Your task to perform on an android device: stop showing notifications on the lock screen Image 0: 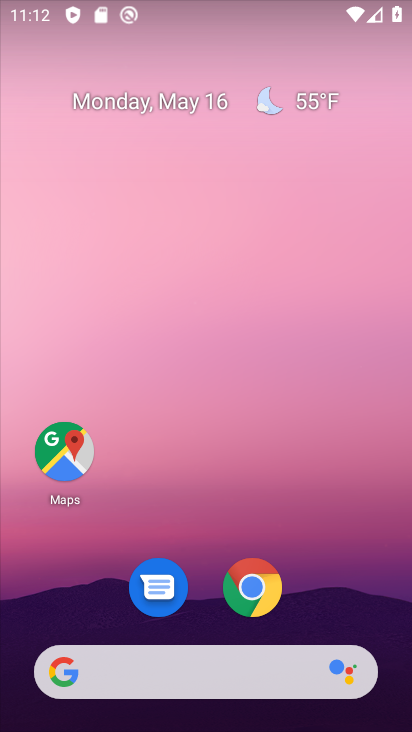
Step 0: click (307, 207)
Your task to perform on an android device: stop showing notifications on the lock screen Image 1: 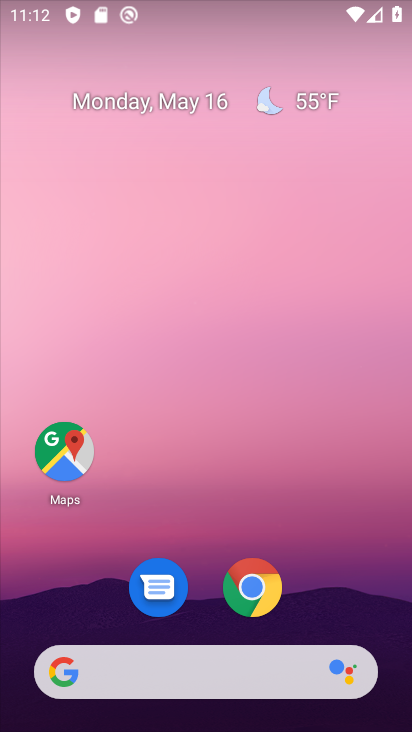
Step 1: drag from (214, 617) to (266, 122)
Your task to perform on an android device: stop showing notifications on the lock screen Image 2: 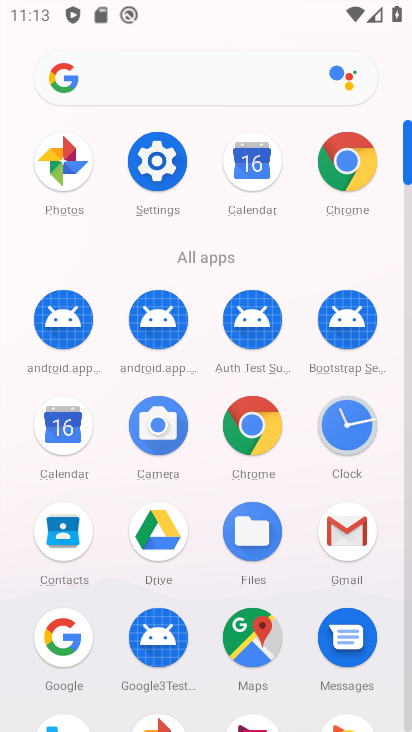
Step 2: drag from (190, 659) to (256, 173)
Your task to perform on an android device: stop showing notifications on the lock screen Image 3: 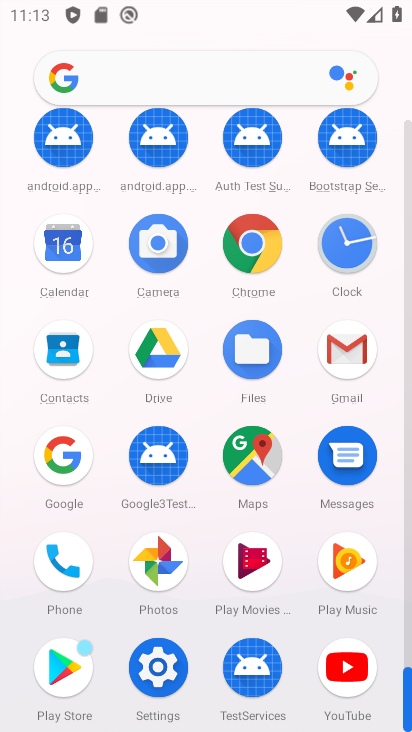
Step 3: click (173, 665)
Your task to perform on an android device: stop showing notifications on the lock screen Image 4: 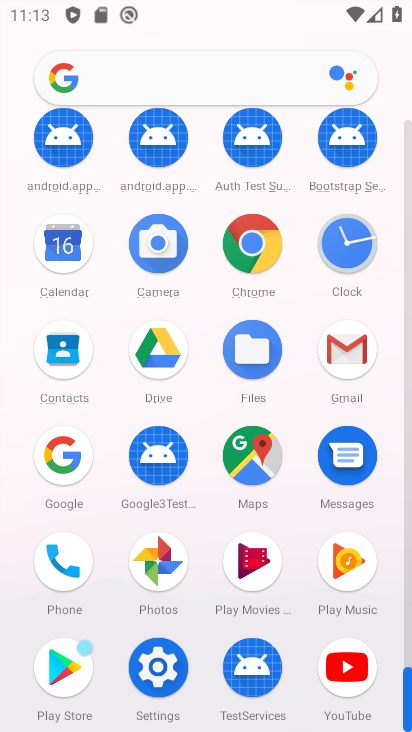
Step 4: click (173, 665)
Your task to perform on an android device: stop showing notifications on the lock screen Image 5: 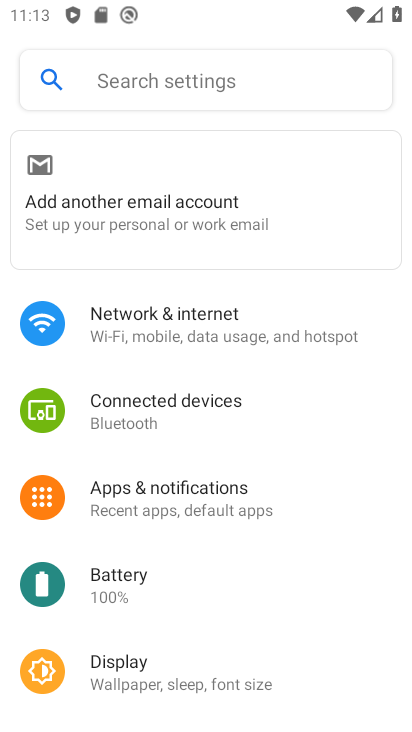
Step 5: click (178, 506)
Your task to perform on an android device: stop showing notifications on the lock screen Image 6: 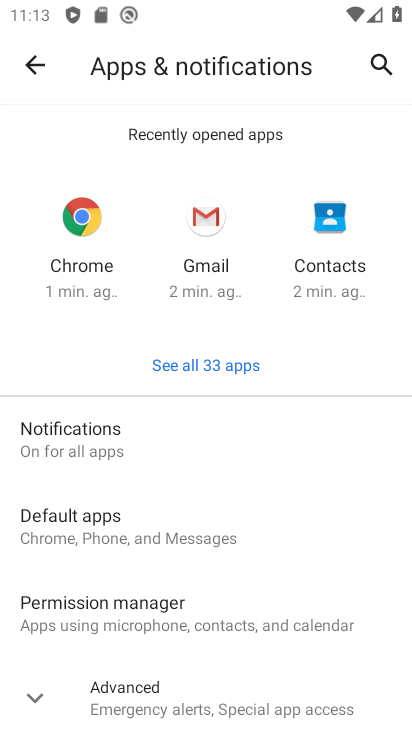
Step 6: click (173, 442)
Your task to perform on an android device: stop showing notifications on the lock screen Image 7: 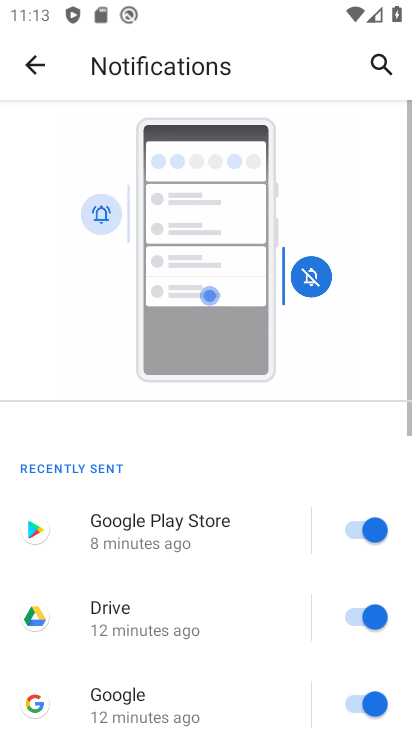
Step 7: drag from (218, 639) to (325, 132)
Your task to perform on an android device: stop showing notifications on the lock screen Image 8: 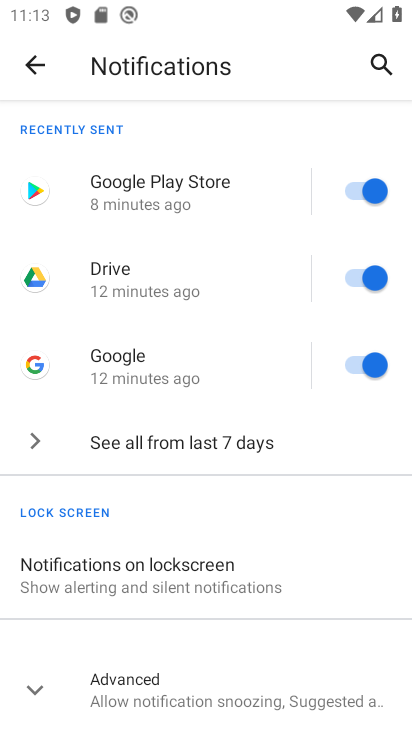
Step 8: drag from (222, 647) to (319, 341)
Your task to perform on an android device: stop showing notifications on the lock screen Image 9: 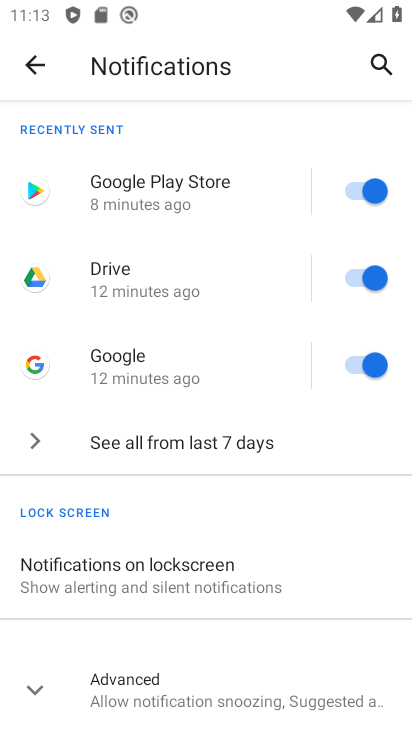
Step 9: click (225, 577)
Your task to perform on an android device: stop showing notifications on the lock screen Image 10: 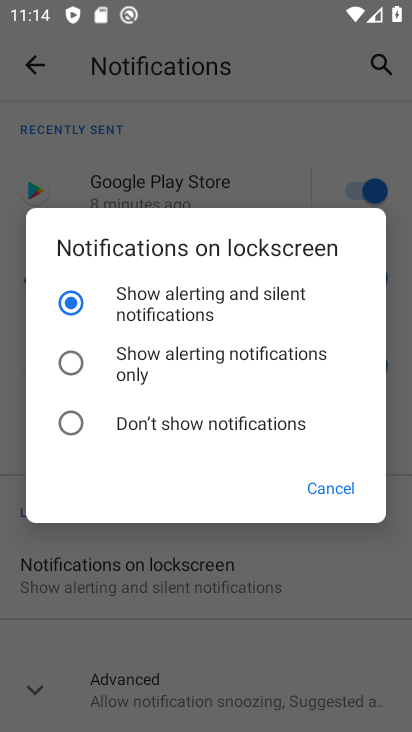
Step 10: click (341, 488)
Your task to perform on an android device: stop showing notifications on the lock screen Image 11: 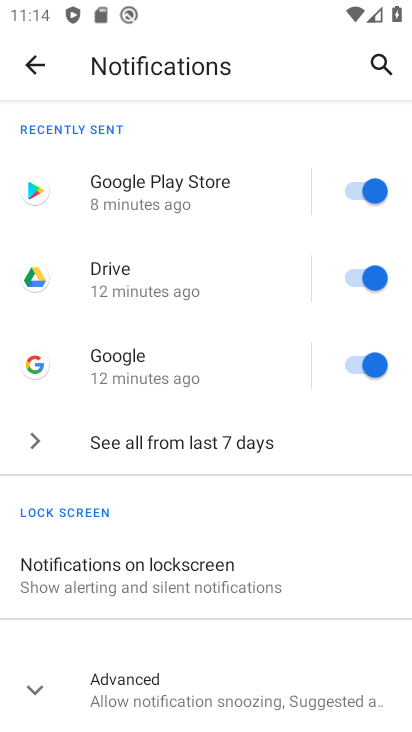
Step 11: click (186, 583)
Your task to perform on an android device: stop showing notifications on the lock screen Image 12: 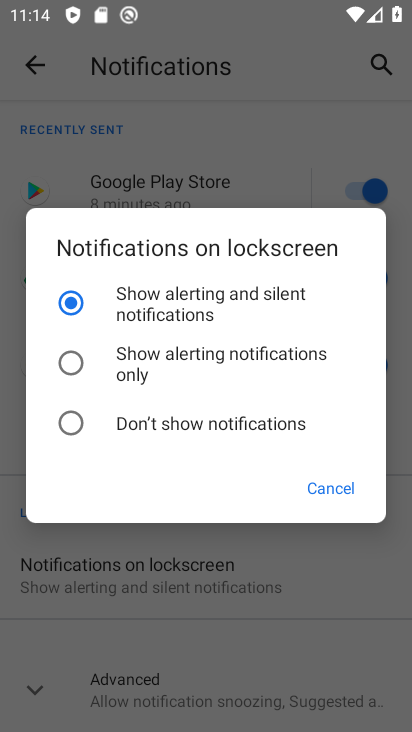
Step 12: click (186, 583)
Your task to perform on an android device: stop showing notifications on the lock screen Image 13: 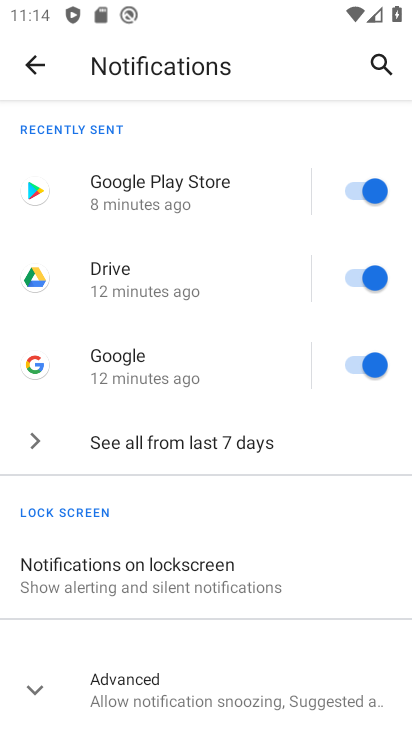
Step 13: click (201, 580)
Your task to perform on an android device: stop showing notifications on the lock screen Image 14: 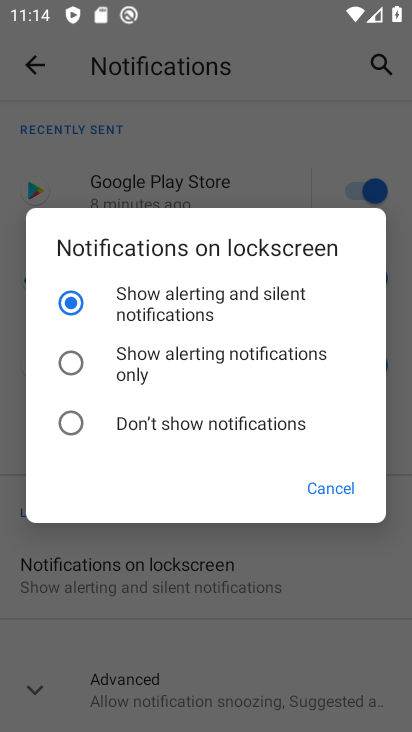
Step 14: click (82, 425)
Your task to perform on an android device: stop showing notifications on the lock screen Image 15: 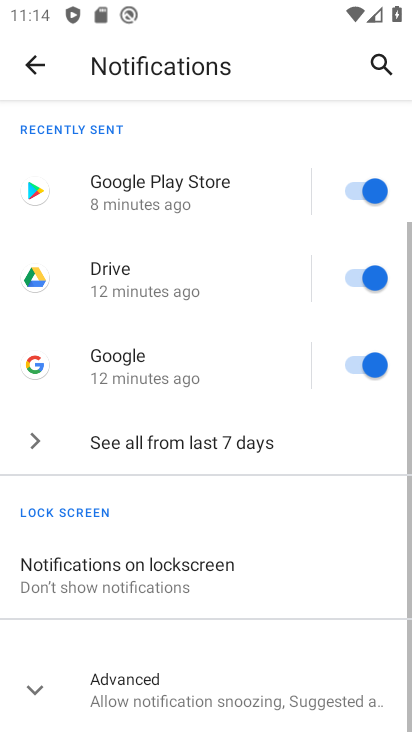
Step 15: task complete